Your task to perform on an android device: Go to ESPN.com Image 0: 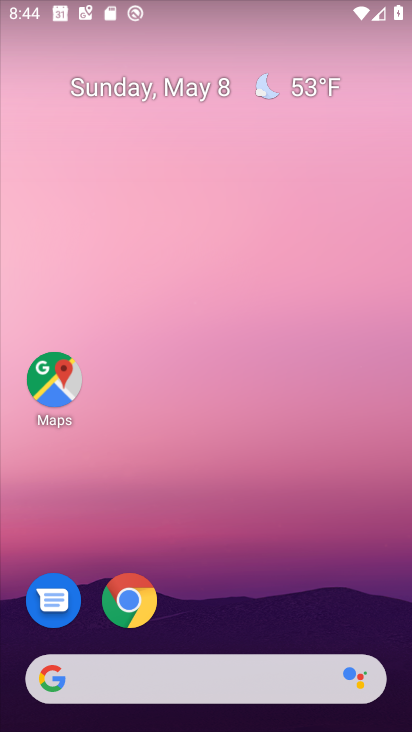
Step 0: click (119, 626)
Your task to perform on an android device: Go to ESPN.com Image 1: 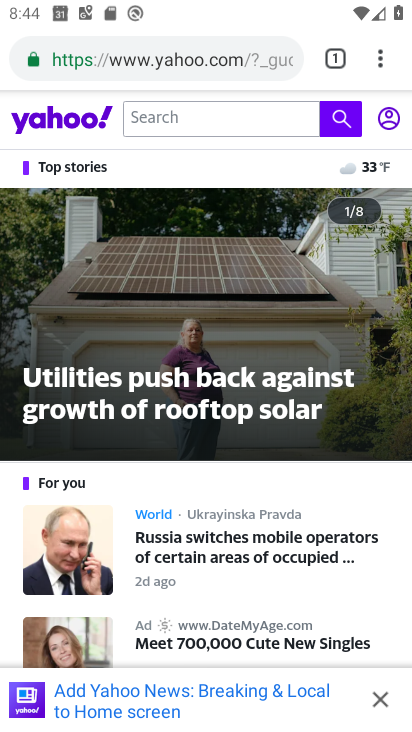
Step 1: click (220, 67)
Your task to perform on an android device: Go to ESPN.com Image 2: 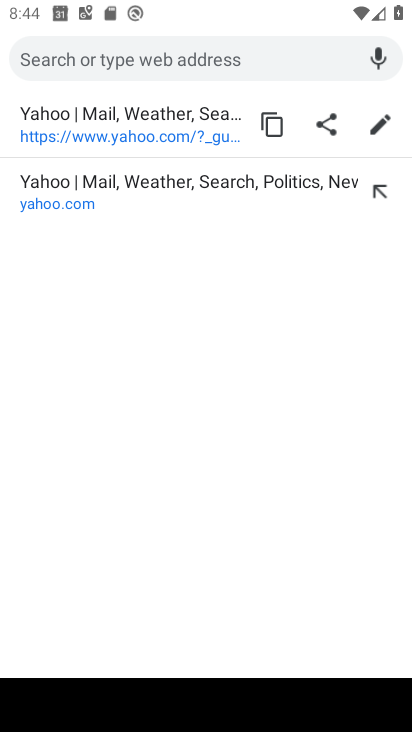
Step 2: type "espn.com"
Your task to perform on an android device: Go to ESPN.com Image 3: 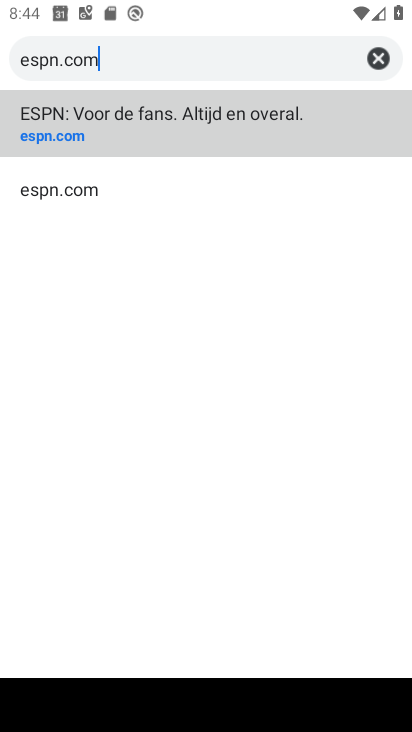
Step 3: click (147, 130)
Your task to perform on an android device: Go to ESPN.com Image 4: 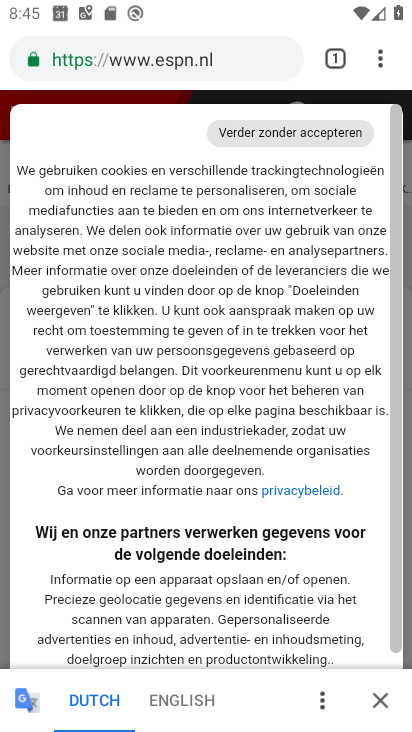
Step 4: task complete